Your task to perform on an android device: turn on javascript in the chrome app Image 0: 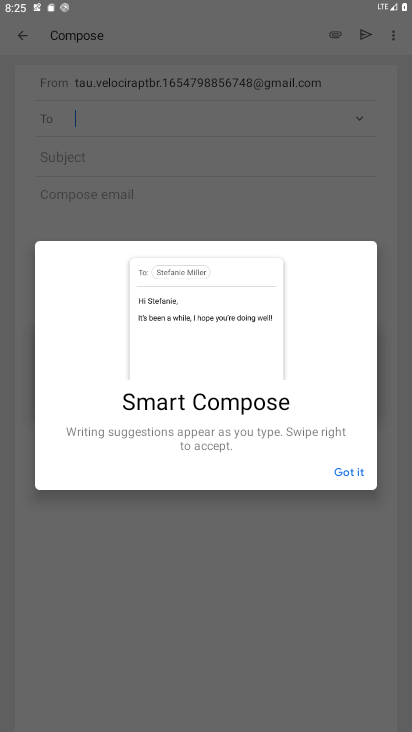
Step 0: press home button
Your task to perform on an android device: turn on javascript in the chrome app Image 1: 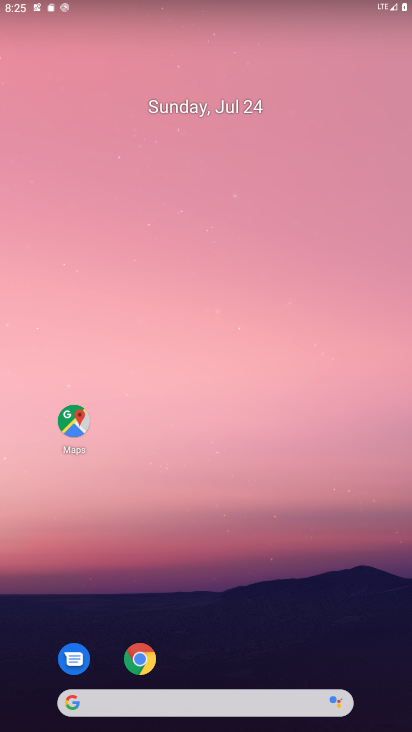
Step 1: click (134, 658)
Your task to perform on an android device: turn on javascript in the chrome app Image 2: 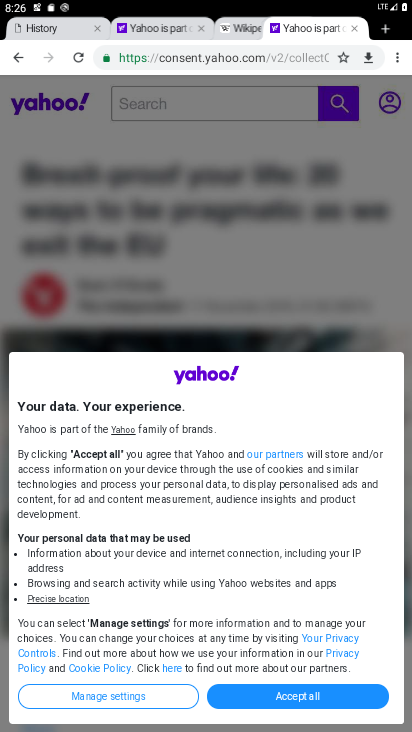
Step 2: click (398, 59)
Your task to perform on an android device: turn on javascript in the chrome app Image 3: 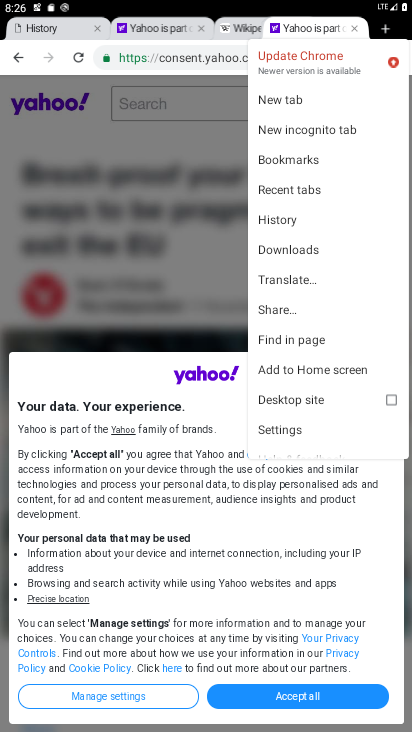
Step 3: click (280, 427)
Your task to perform on an android device: turn on javascript in the chrome app Image 4: 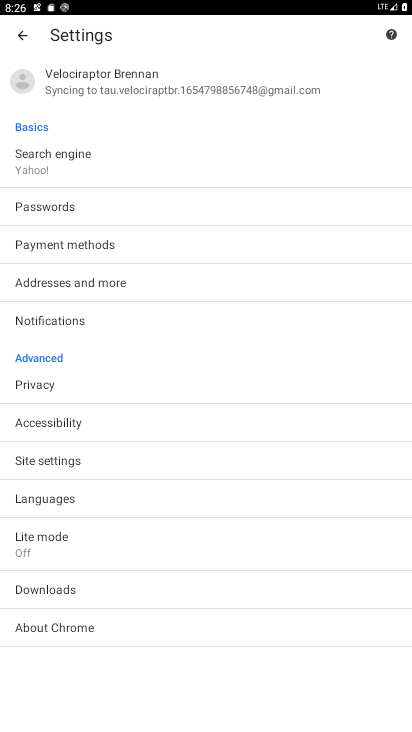
Step 4: click (44, 458)
Your task to perform on an android device: turn on javascript in the chrome app Image 5: 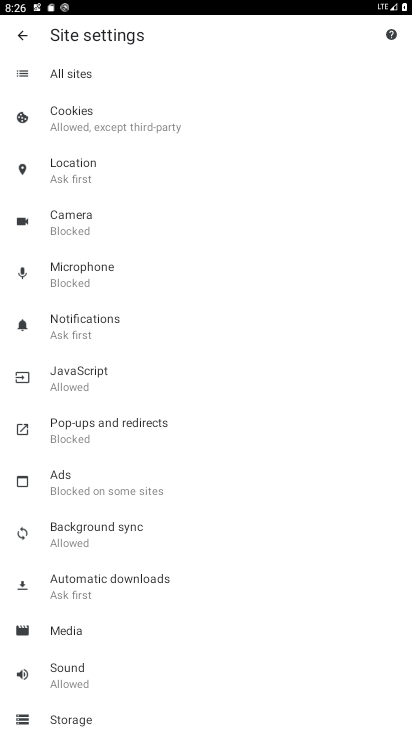
Step 5: click (67, 382)
Your task to perform on an android device: turn on javascript in the chrome app Image 6: 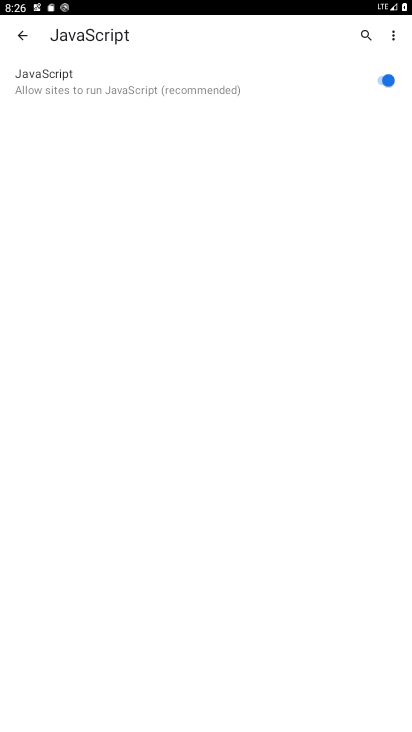
Step 6: task complete